Your task to perform on an android device: toggle notification dots Image 0: 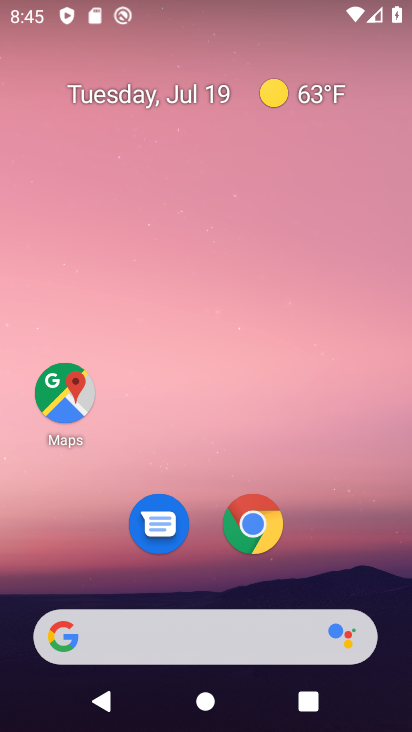
Step 0: drag from (177, 640) to (327, 126)
Your task to perform on an android device: toggle notification dots Image 1: 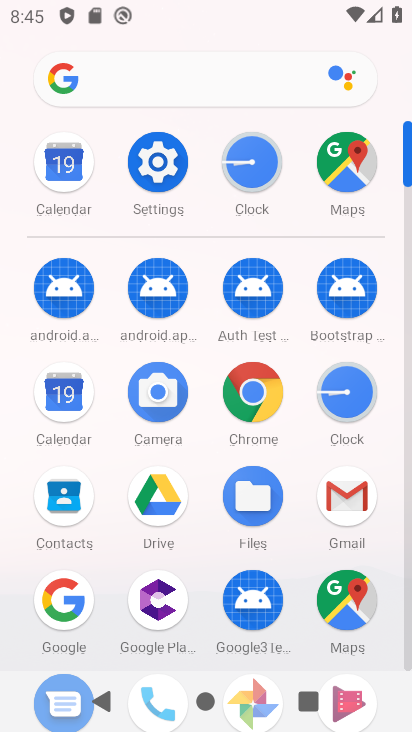
Step 1: click (146, 163)
Your task to perform on an android device: toggle notification dots Image 2: 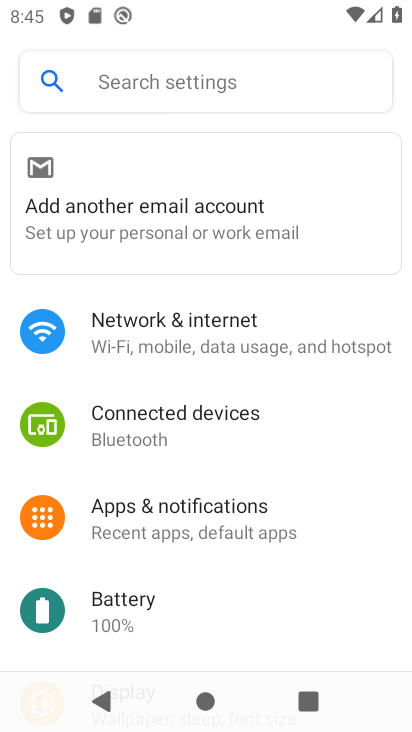
Step 2: click (221, 510)
Your task to perform on an android device: toggle notification dots Image 3: 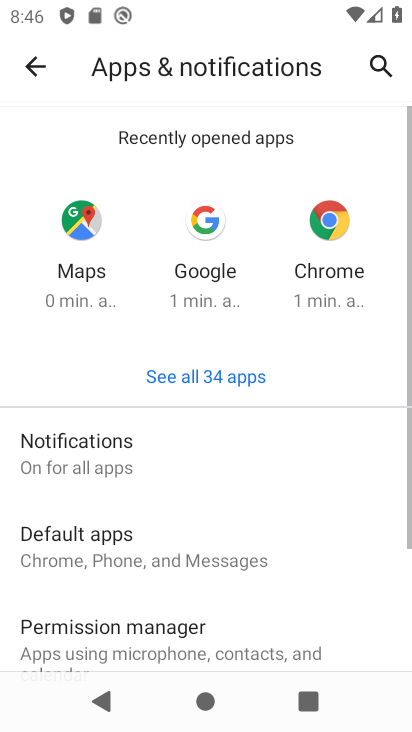
Step 3: click (117, 452)
Your task to perform on an android device: toggle notification dots Image 4: 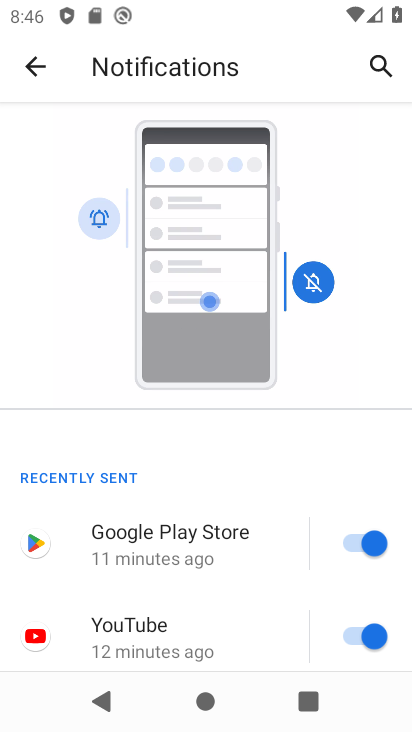
Step 4: drag from (229, 603) to (393, 101)
Your task to perform on an android device: toggle notification dots Image 5: 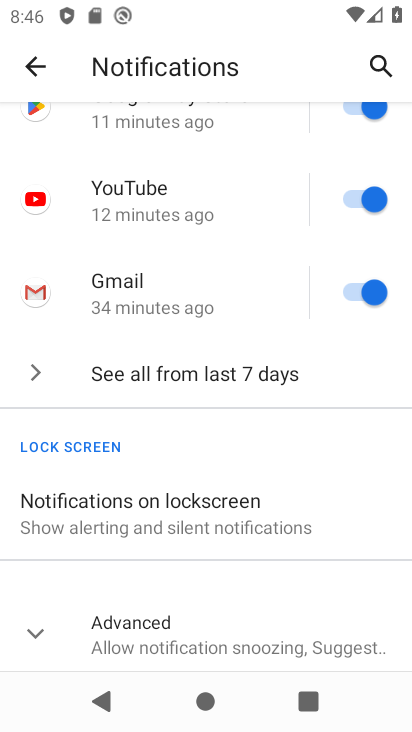
Step 5: click (162, 650)
Your task to perform on an android device: toggle notification dots Image 6: 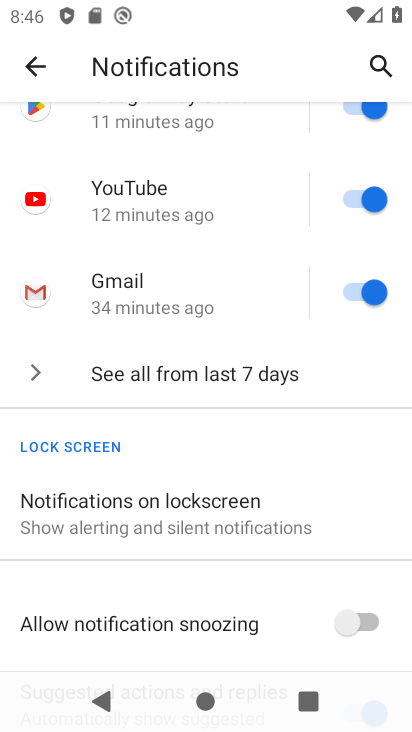
Step 6: drag from (227, 558) to (406, 109)
Your task to perform on an android device: toggle notification dots Image 7: 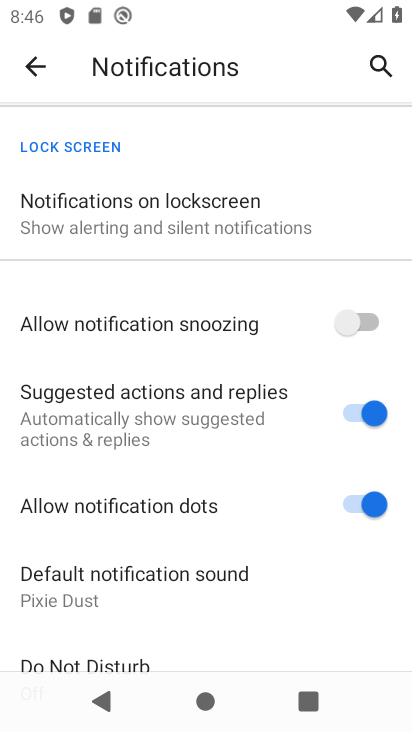
Step 7: click (356, 502)
Your task to perform on an android device: toggle notification dots Image 8: 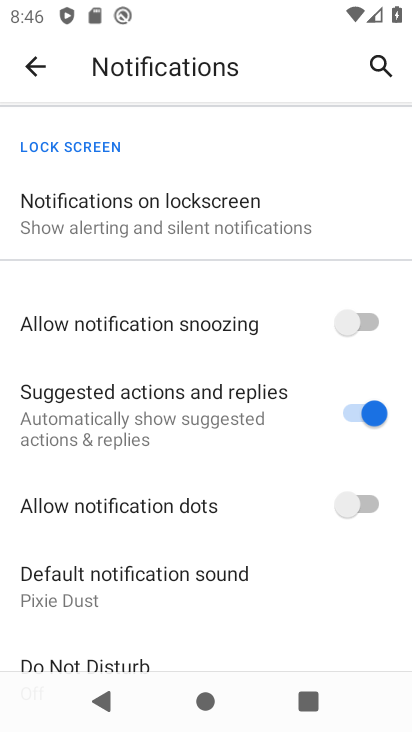
Step 8: task complete